Your task to perform on an android device: Search for pizza restaurants on Maps Image 0: 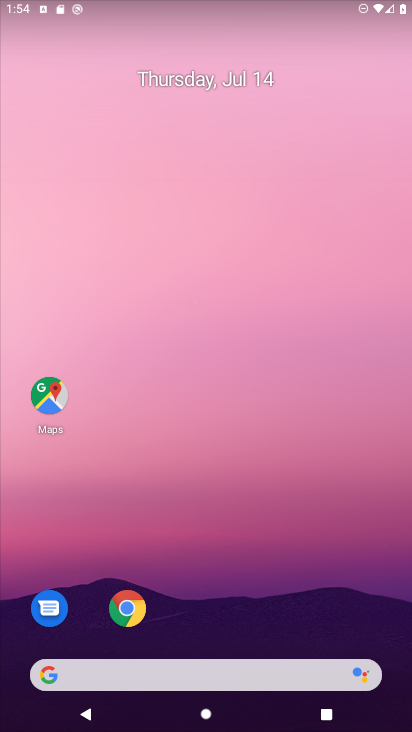
Step 0: click (47, 395)
Your task to perform on an android device: Search for pizza restaurants on Maps Image 1: 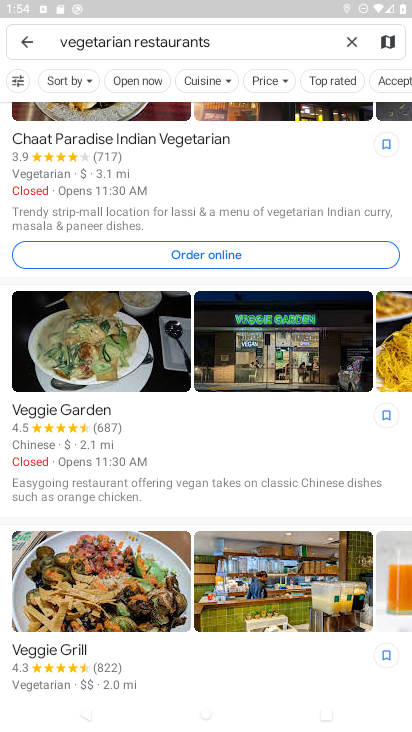
Step 1: click (348, 36)
Your task to perform on an android device: Search for pizza restaurants on Maps Image 2: 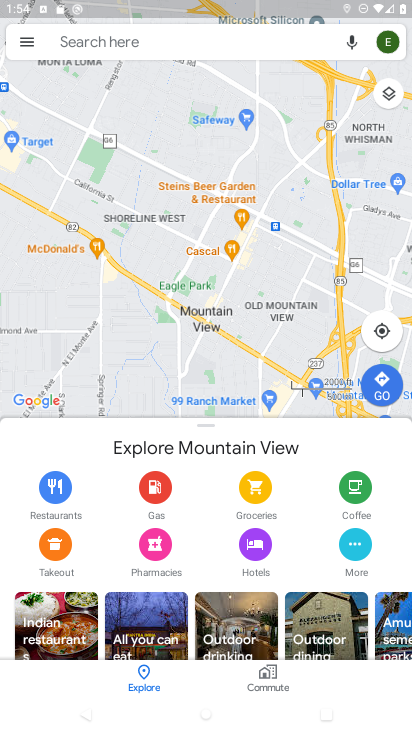
Step 2: click (170, 36)
Your task to perform on an android device: Search for pizza restaurants on Maps Image 3: 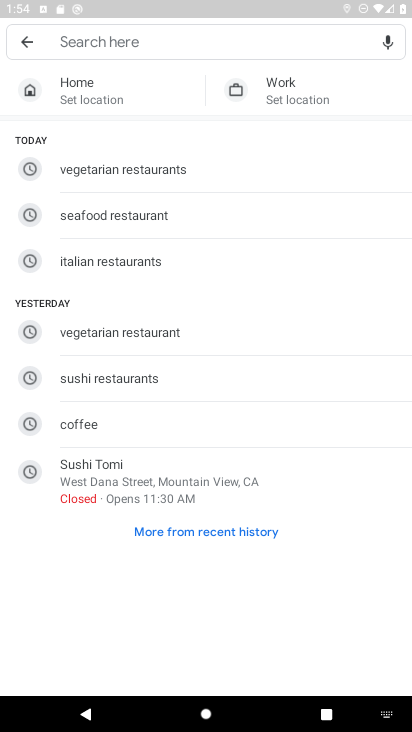
Step 3: type "pizza restaurants"
Your task to perform on an android device: Search for pizza restaurants on Maps Image 4: 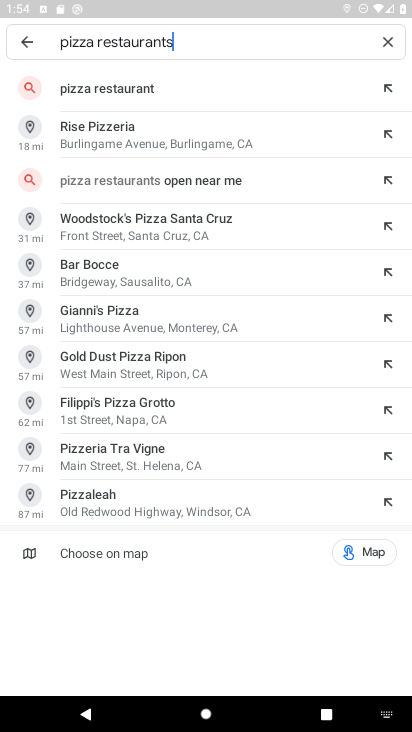
Step 4: click (110, 92)
Your task to perform on an android device: Search for pizza restaurants on Maps Image 5: 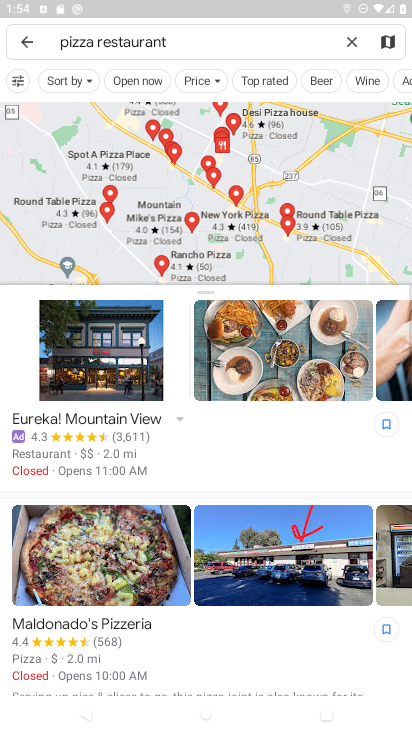
Step 5: task complete